Your task to perform on an android device: Open ESPN.com Image 0: 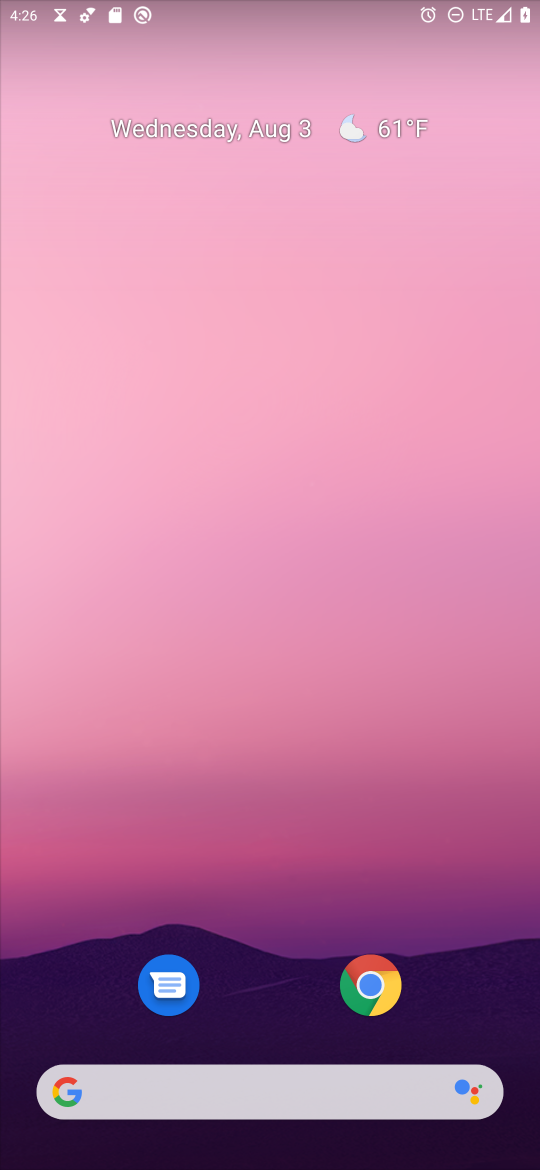
Step 0: click (359, 989)
Your task to perform on an android device: Open ESPN.com Image 1: 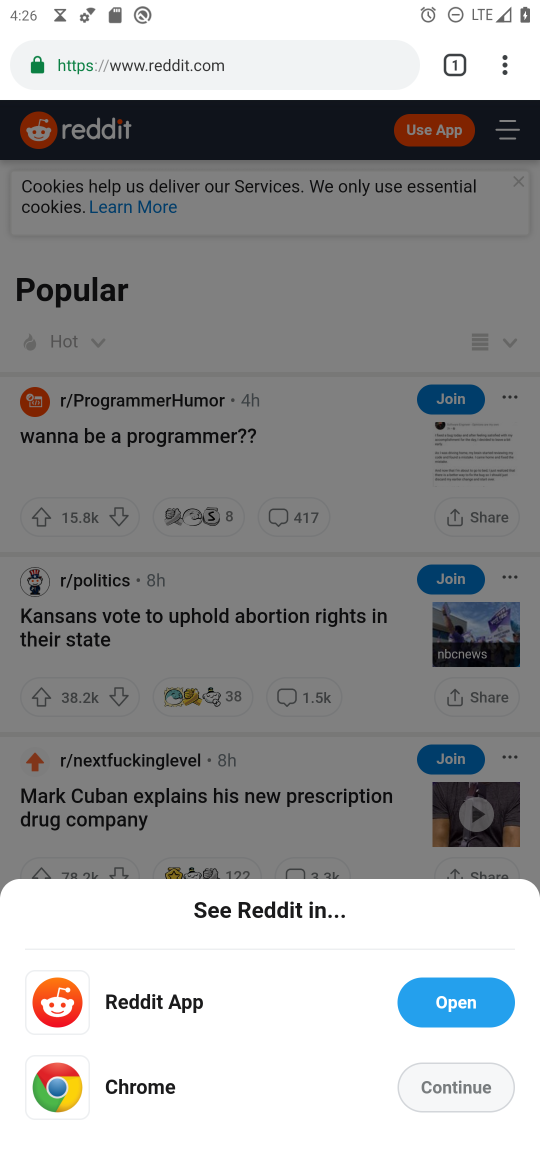
Step 1: click (173, 63)
Your task to perform on an android device: Open ESPN.com Image 2: 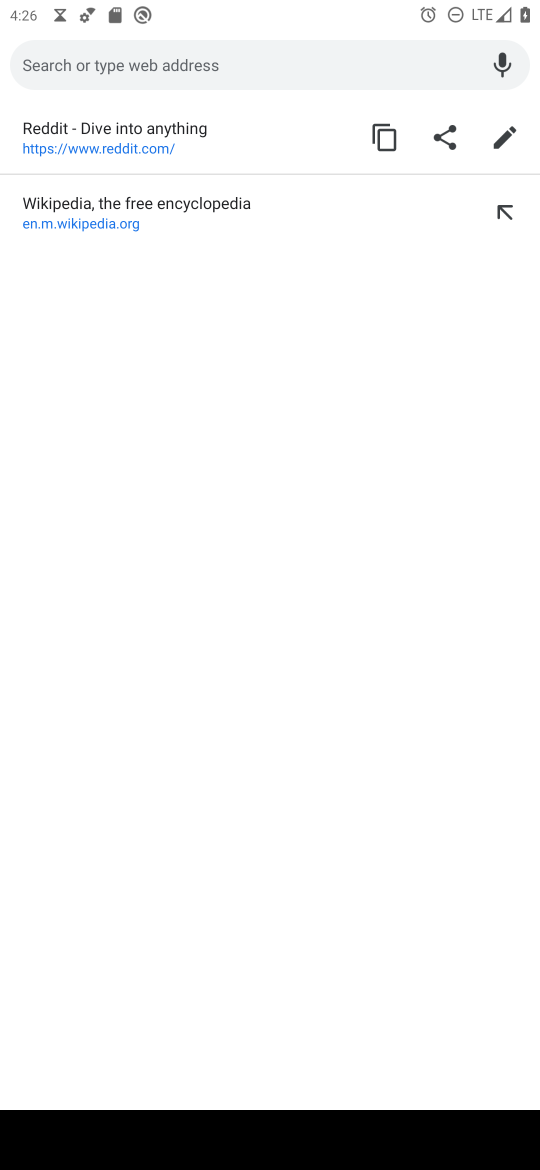
Step 2: type "espn.com"
Your task to perform on an android device: Open ESPN.com Image 3: 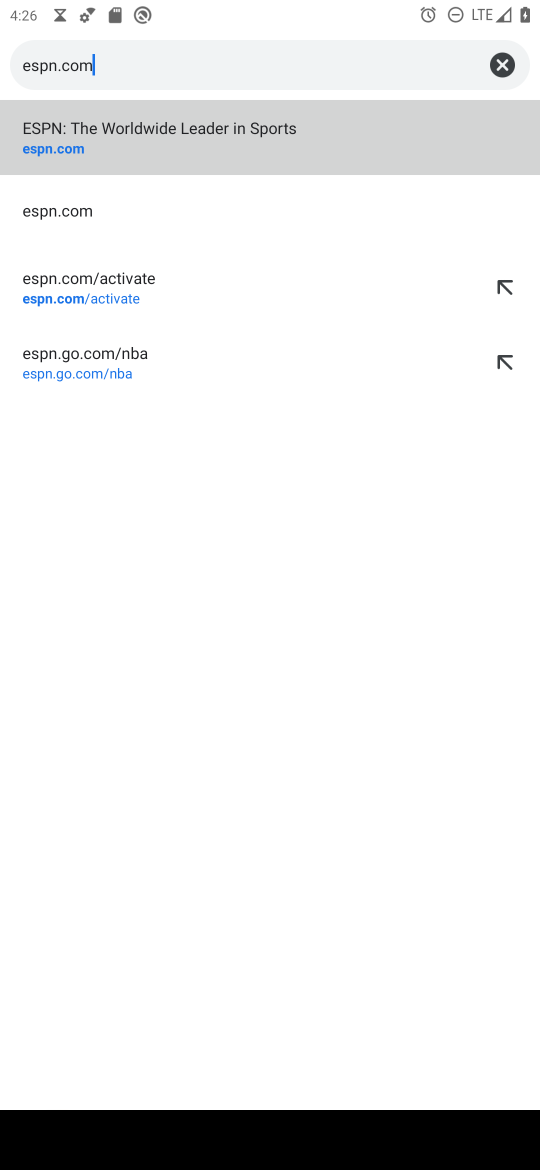
Step 3: click (157, 126)
Your task to perform on an android device: Open ESPN.com Image 4: 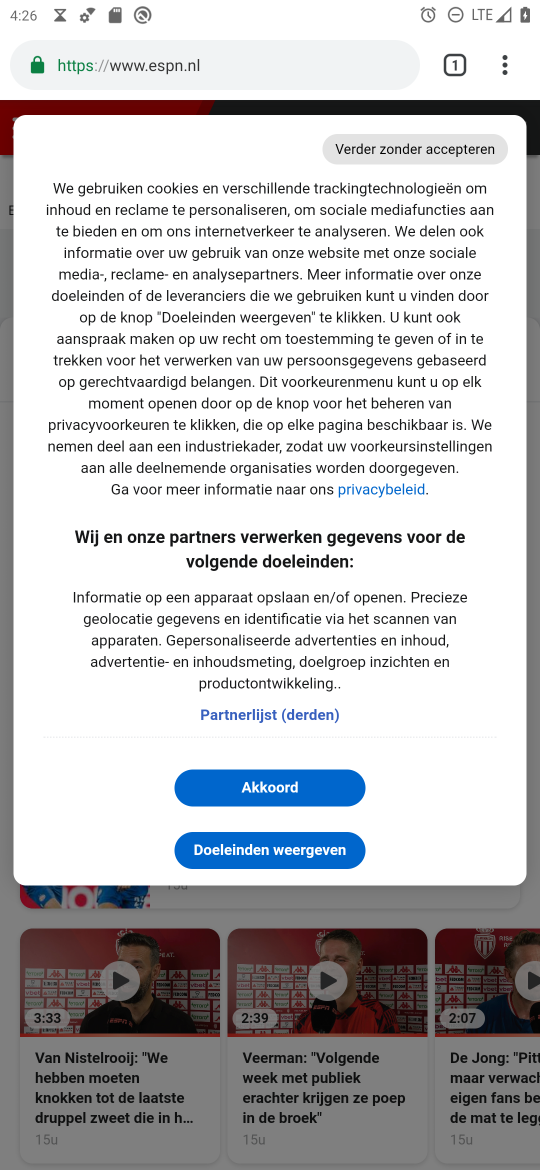
Step 4: task complete